Your task to perform on an android device: Show me productivity apps on the Play Store Image 0: 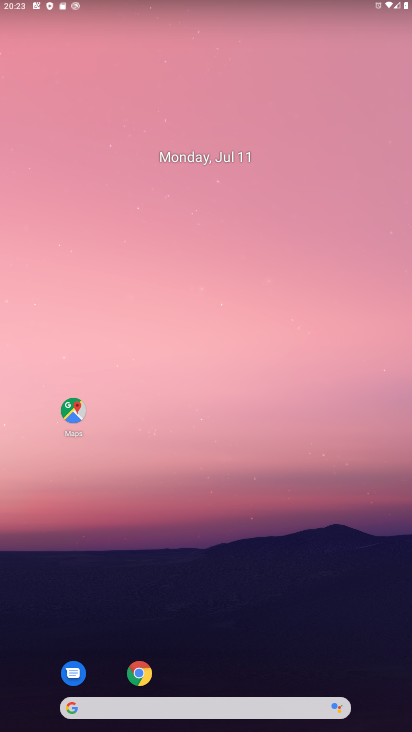
Step 0: drag from (219, 679) to (236, 107)
Your task to perform on an android device: Show me productivity apps on the Play Store Image 1: 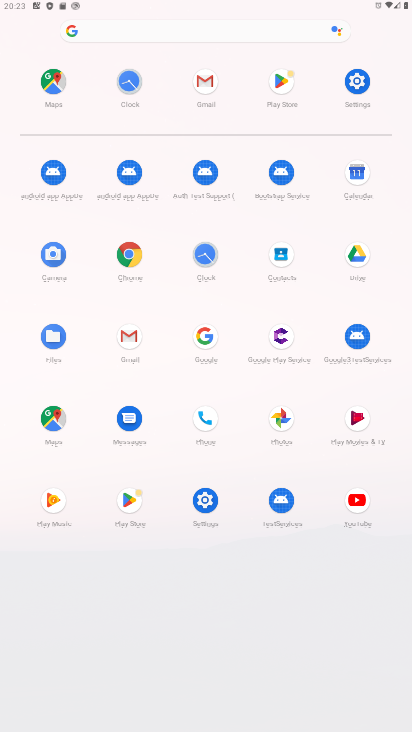
Step 1: click (128, 495)
Your task to perform on an android device: Show me productivity apps on the Play Store Image 2: 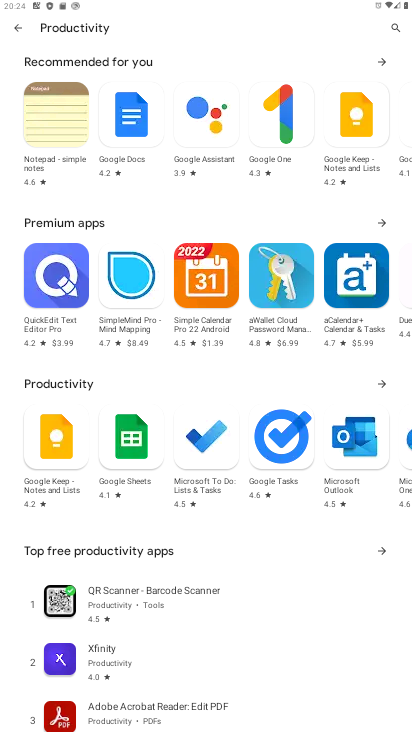
Step 2: task complete